Your task to perform on an android device: find which apps use the phone's location Image 0: 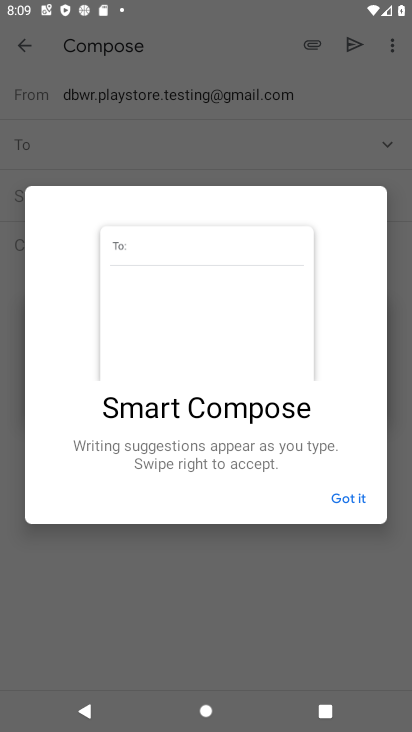
Step 0: press home button
Your task to perform on an android device: find which apps use the phone's location Image 1: 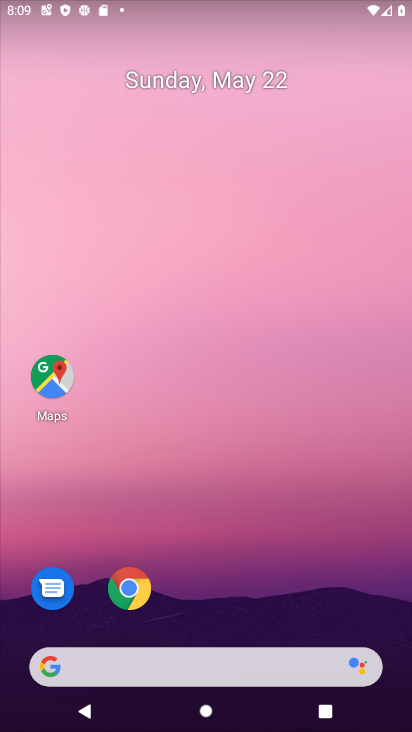
Step 1: drag from (236, 576) to (149, 89)
Your task to perform on an android device: find which apps use the phone's location Image 2: 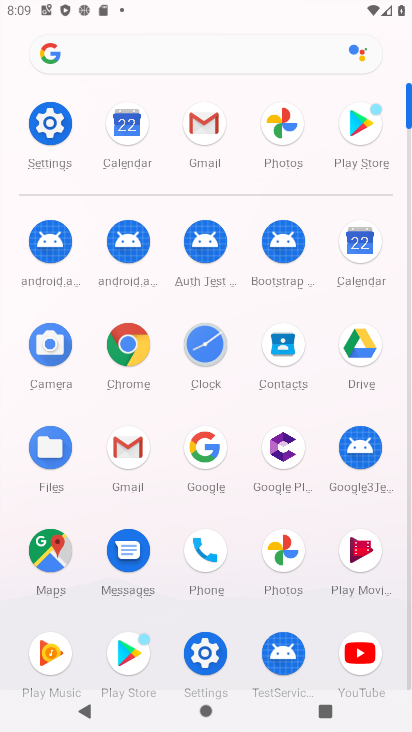
Step 2: click (47, 121)
Your task to perform on an android device: find which apps use the phone's location Image 3: 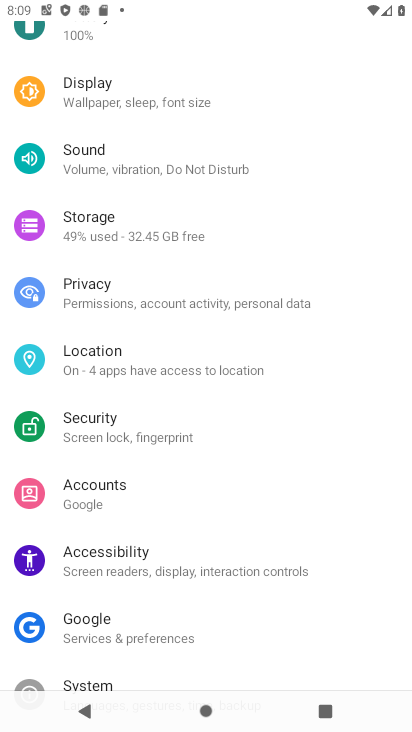
Step 3: click (96, 350)
Your task to perform on an android device: find which apps use the phone's location Image 4: 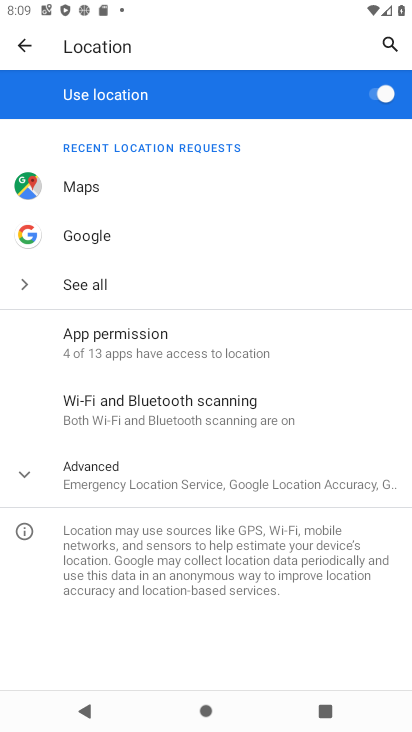
Step 4: click (63, 283)
Your task to perform on an android device: find which apps use the phone's location Image 5: 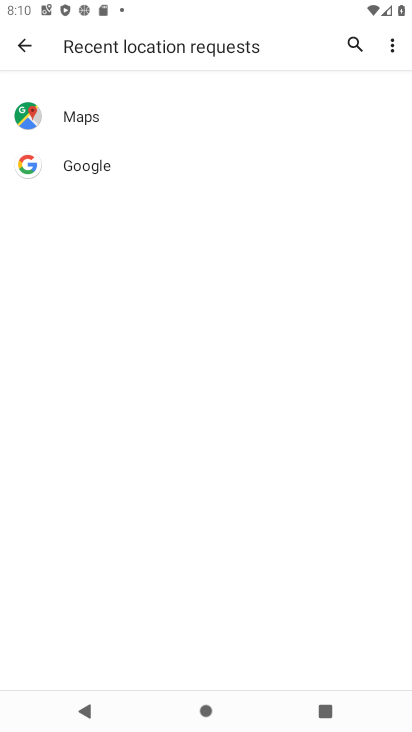
Step 5: task complete